Your task to perform on an android device: open a bookmark in the chrome app Image 0: 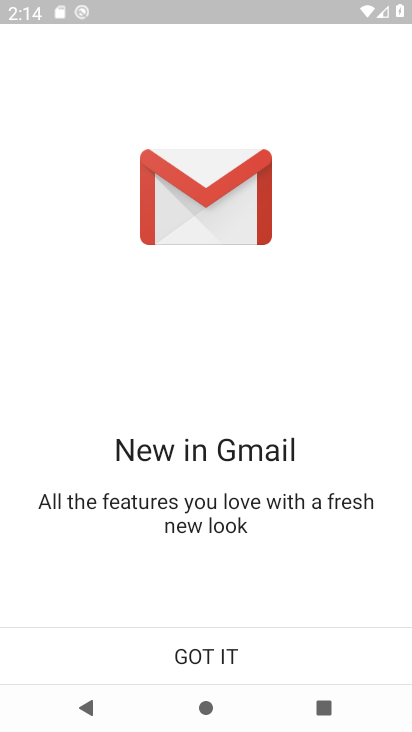
Step 0: click (216, 661)
Your task to perform on an android device: open a bookmark in the chrome app Image 1: 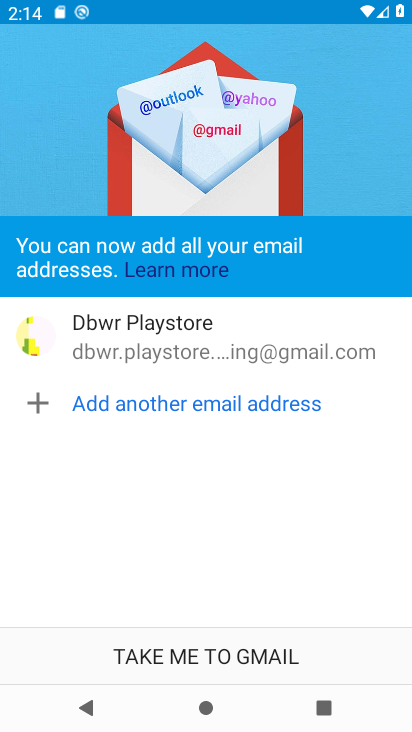
Step 1: click (236, 661)
Your task to perform on an android device: open a bookmark in the chrome app Image 2: 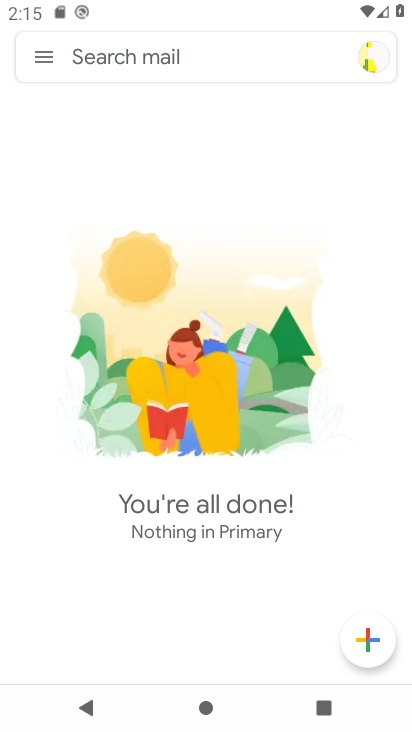
Step 2: press back button
Your task to perform on an android device: open a bookmark in the chrome app Image 3: 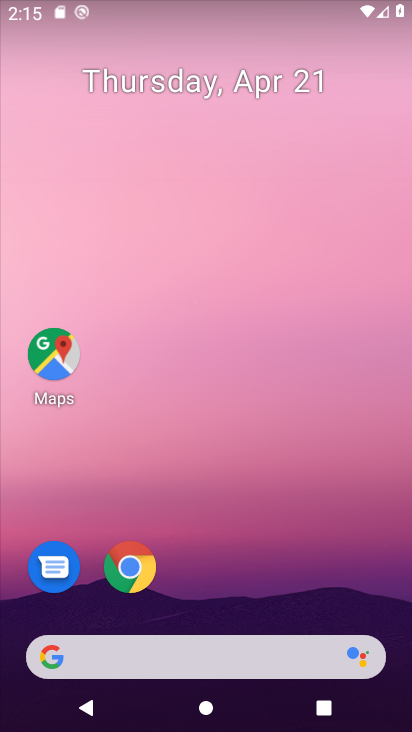
Step 3: drag from (295, 525) to (303, 15)
Your task to perform on an android device: open a bookmark in the chrome app Image 4: 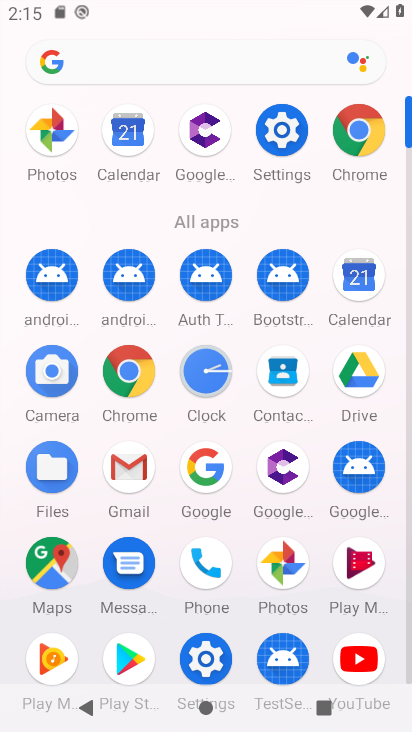
Step 4: drag from (10, 567) to (8, 346)
Your task to perform on an android device: open a bookmark in the chrome app Image 5: 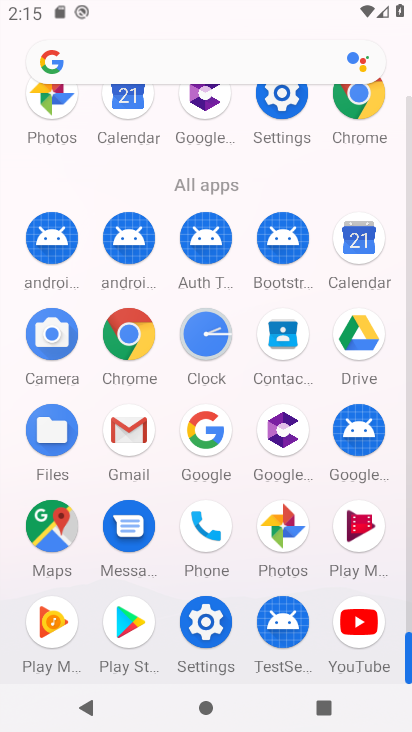
Step 5: click (128, 332)
Your task to perform on an android device: open a bookmark in the chrome app Image 6: 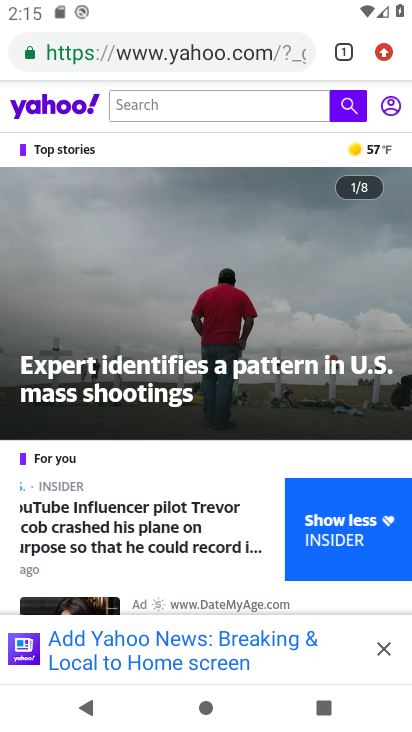
Step 6: drag from (381, 52) to (263, 268)
Your task to perform on an android device: open a bookmark in the chrome app Image 7: 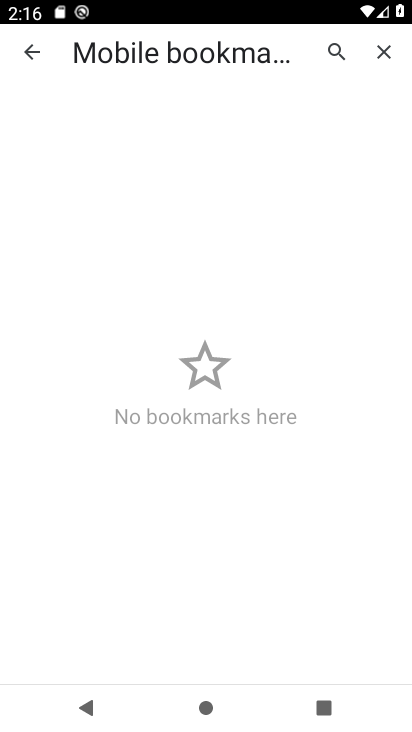
Step 7: click (378, 48)
Your task to perform on an android device: open a bookmark in the chrome app Image 8: 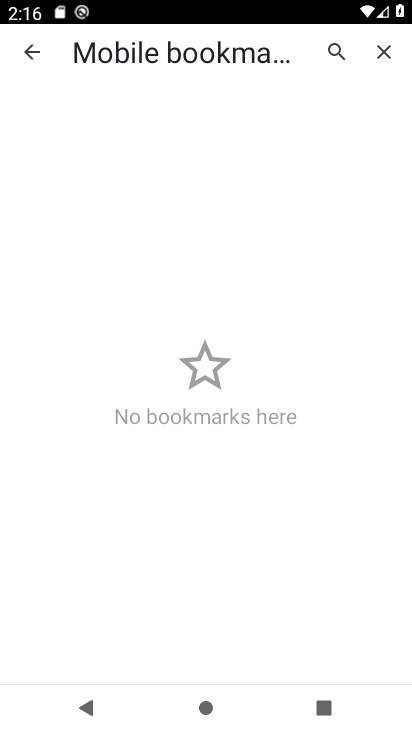
Step 8: task complete